Your task to perform on an android device: change text size in settings app Image 0: 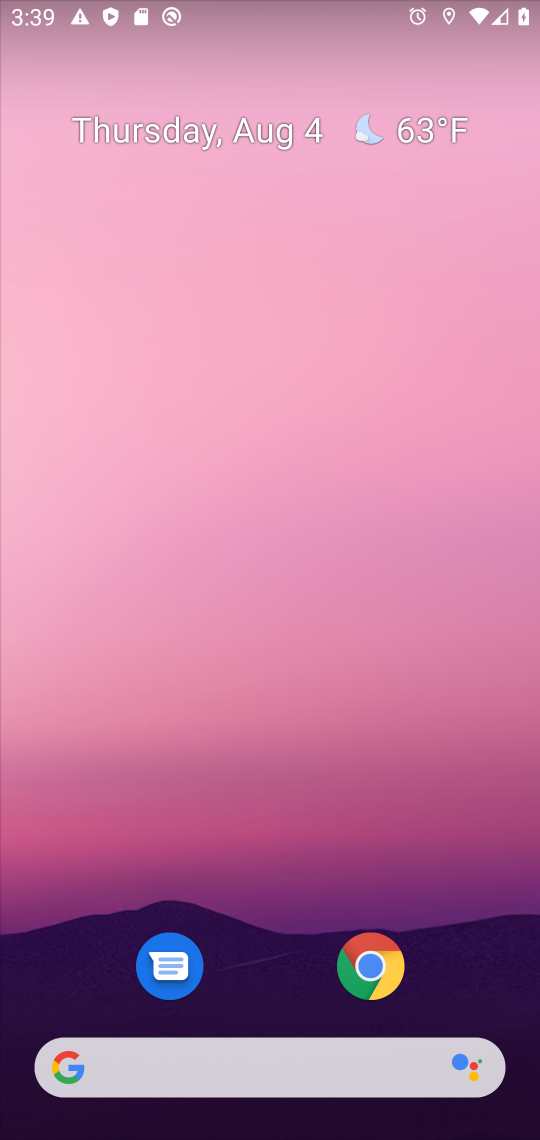
Step 0: drag from (252, 790) to (214, 145)
Your task to perform on an android device: change text size in settings app Image 1: 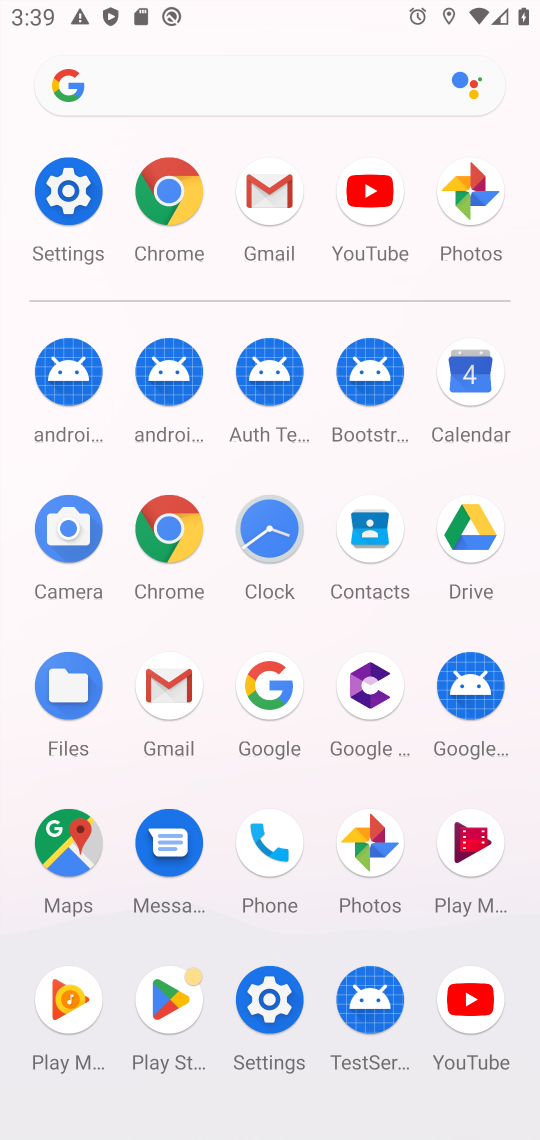
Step 1: click (63, 202)
Your task to perform on an android device: change text size in settings app Image 2: 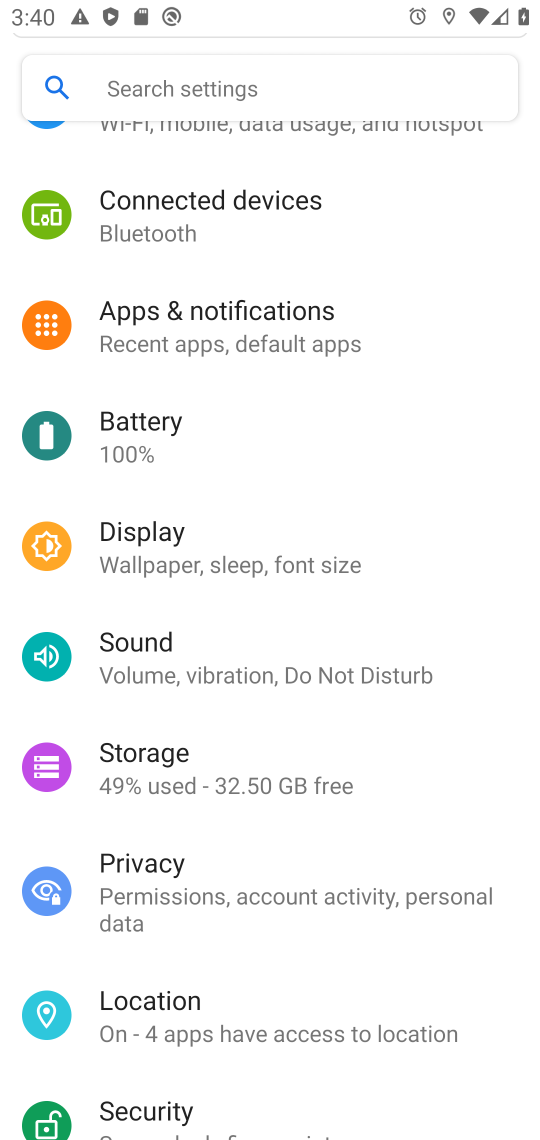
Step 2: drag from (428, 299) to (418, 823)
Your task to perform on an android device: change text size in settings app Image 3: 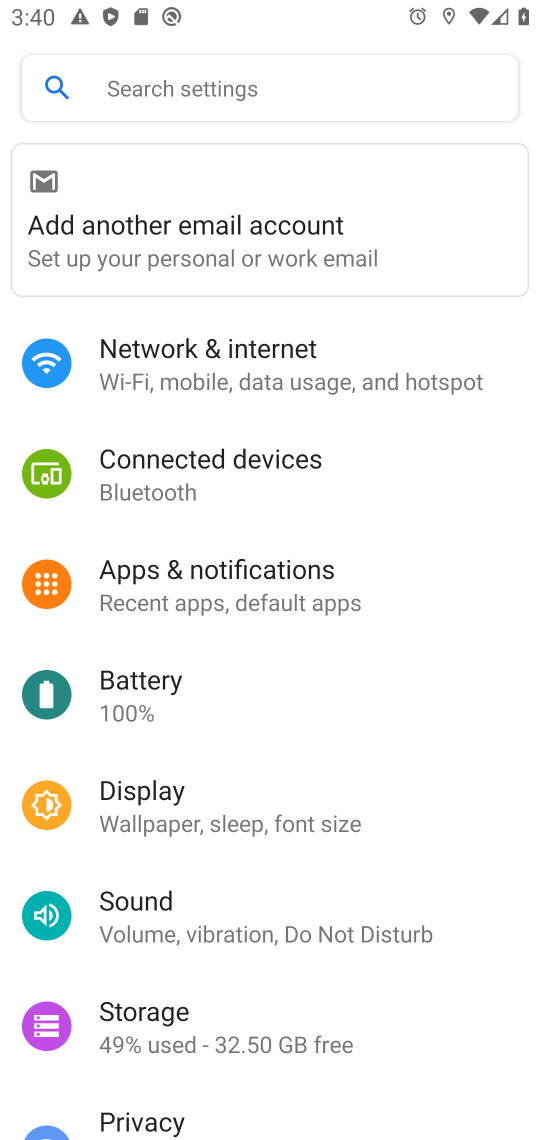
Step 3: click (125, 799)
Your task to perform on an android device: change text size in settings app Image 4: 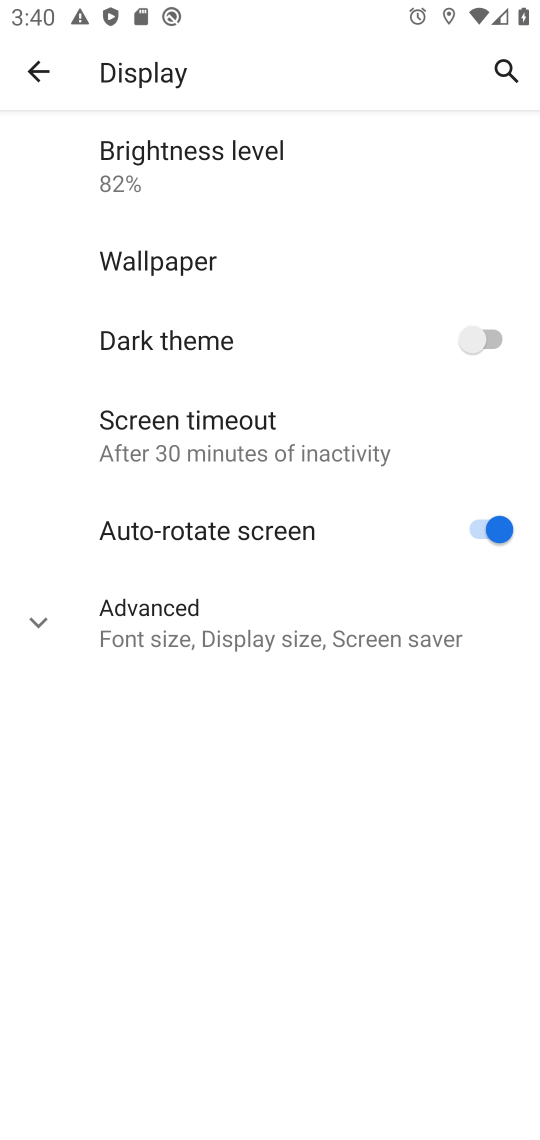
Step 4: click (143, 636)
Your task to perform on an android device: change text size in settings app Image 5: 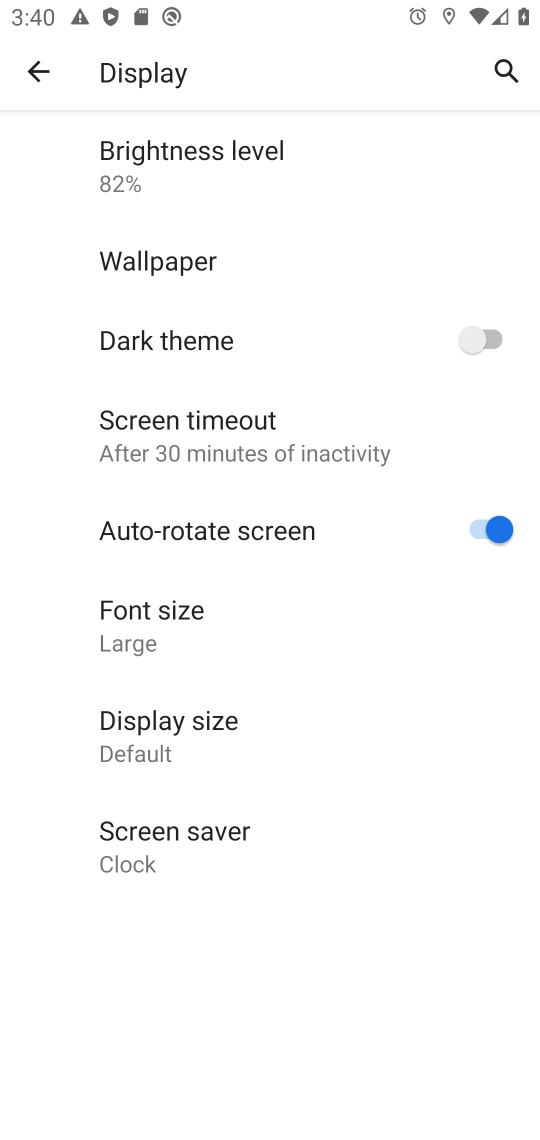
Step 5: click (117, 628)
Your task to perform on an android device: change text size in settings app Image 6: 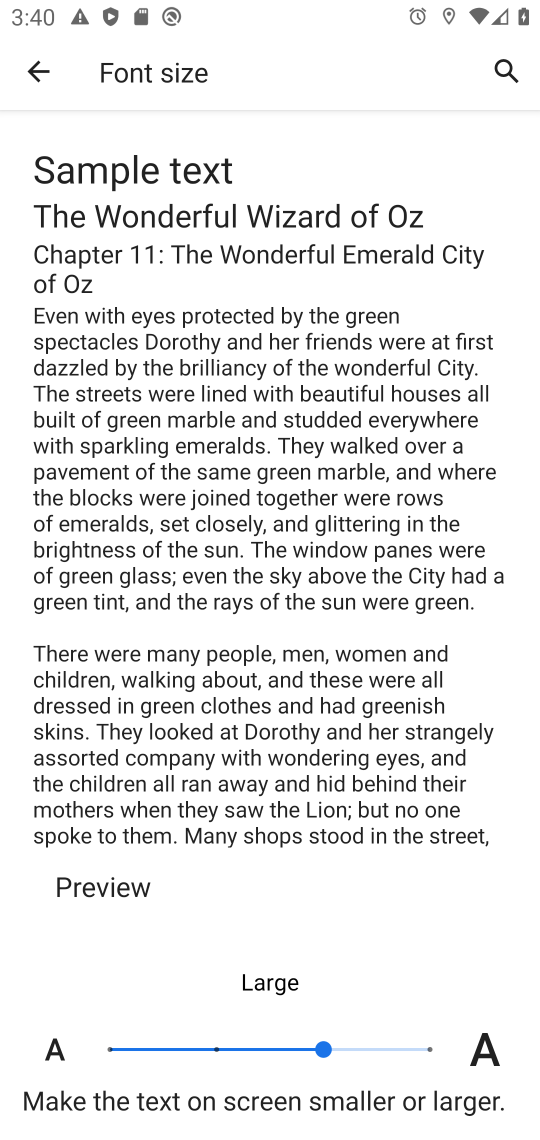
Step 6: click (317, 1049)
Your task to perform on an android device: change text size in settings app Image 7: 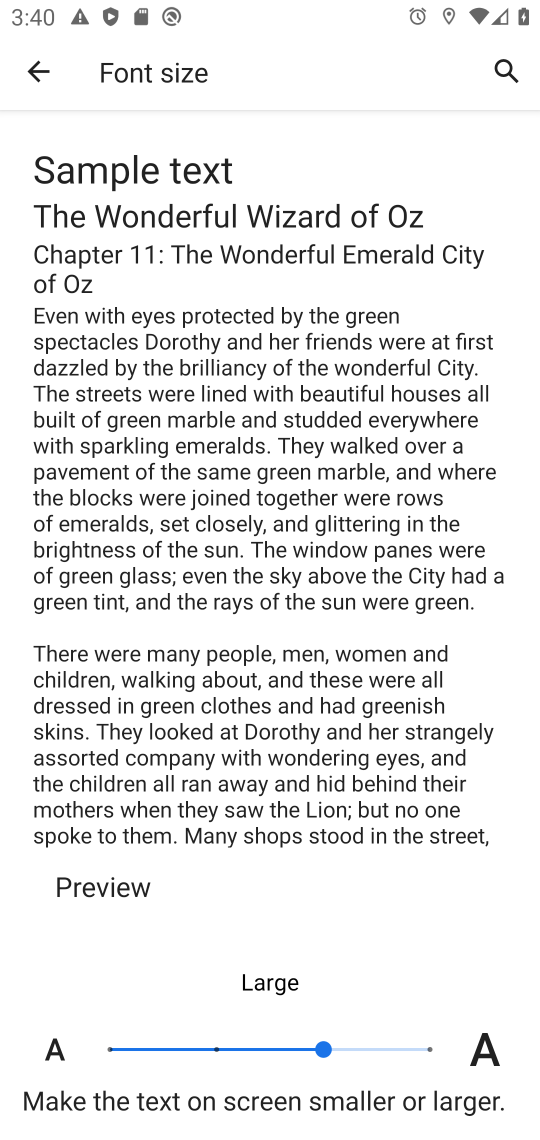
Step 7: click (428, 1049)
Your task to perform on an android device: change text size in settings app Image 8: 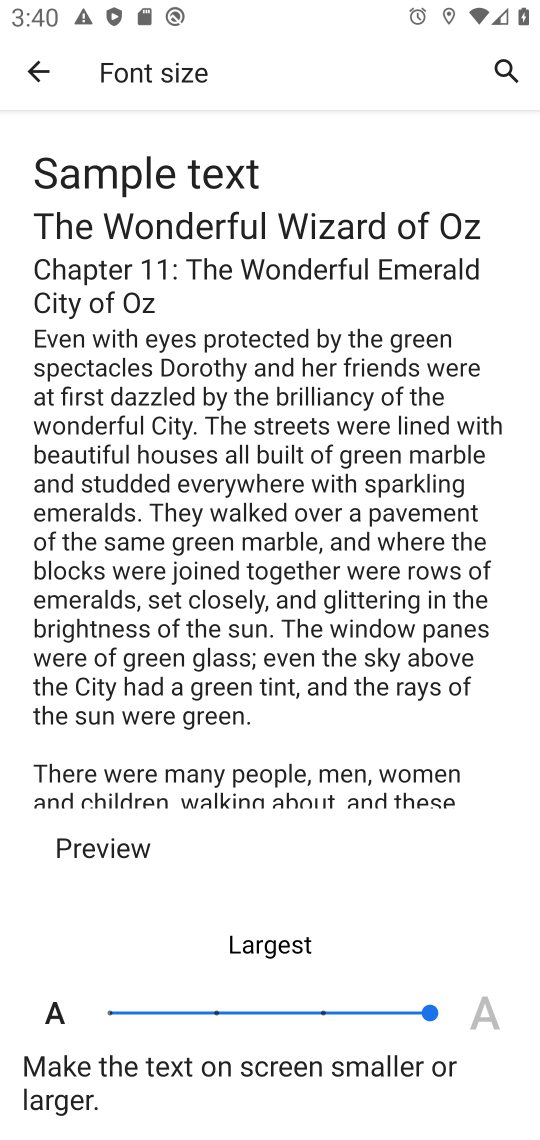
Step 8: task complete